Your task to perform on an android device: refresh tabs in the chrome app Image 0: 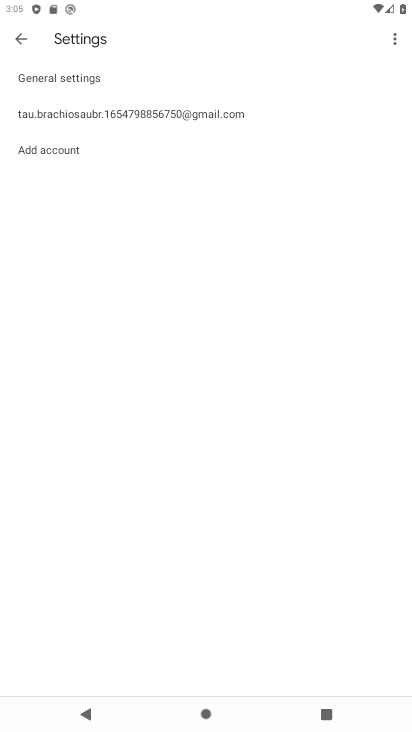
Step 0: press home button
Your task to perform on an android device: refresh tabs in the chrome app Image 1: 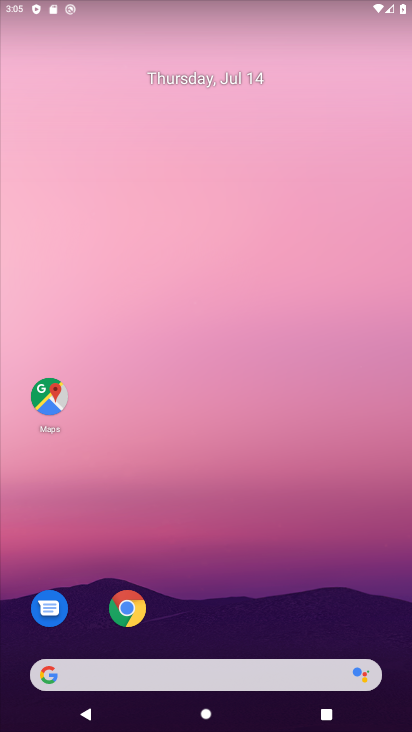
Step 1: drag from (179, 637) to (177, 77)
Your task to perform on an android device: refresh tabs in the chrome app Image 2: 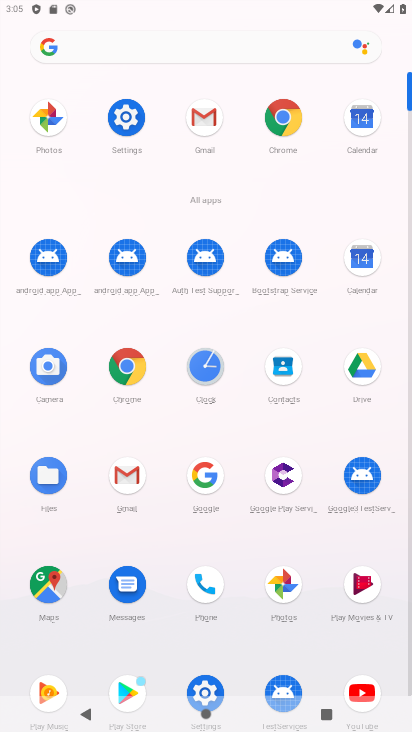
Step 2: click (119, 371)
Your task to perform on an android device: refresh tabs in the chrome app Image 3: 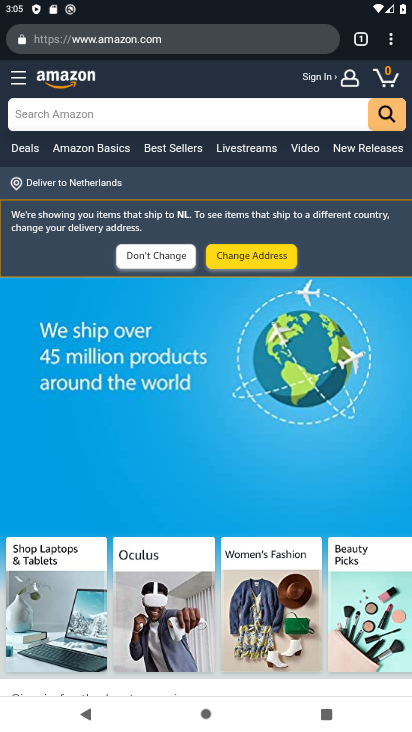
Step 3: click (388, 42)
Your task to perform on an android device: refresh tabs in the chrome app Image 4: 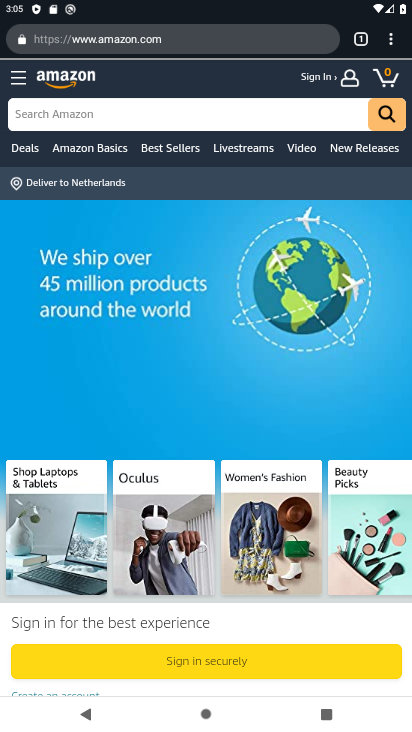
Step 4: task complete